Your task to perform on an android device: Open Google Chrome and open the bookmarks view Image 0: 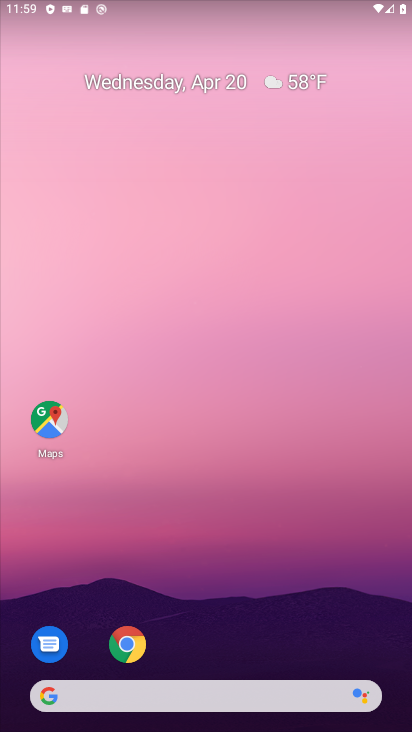
Step 0: click (128, 645)
Your task to perform on an android device: Open Google Chrome and open the bookmarks view Image 1: 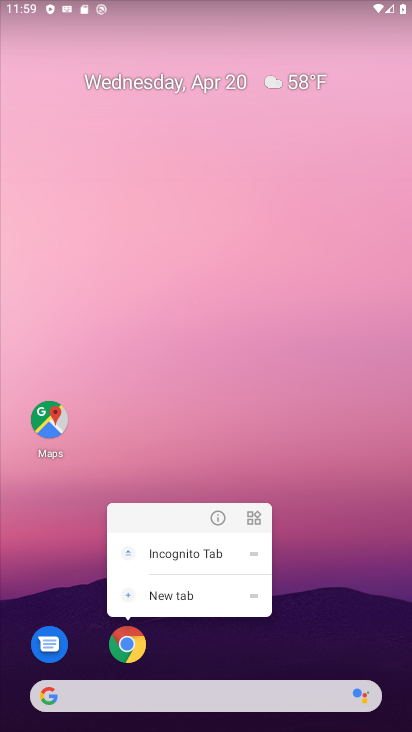
Step 1: click (217, 522)
Your task to perform on an android device: Open Google Chrome and open the bookmarks view Image 2: 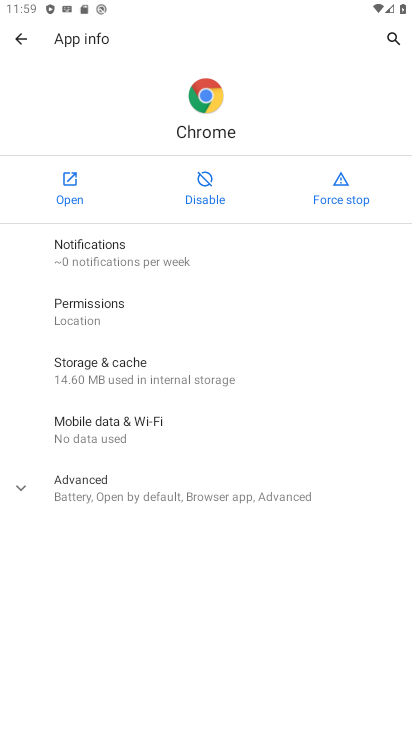
Step 2: click (73, 193)
Your task to perform on an android device: Open Google Chrome and open the bookmarks view Image 3: 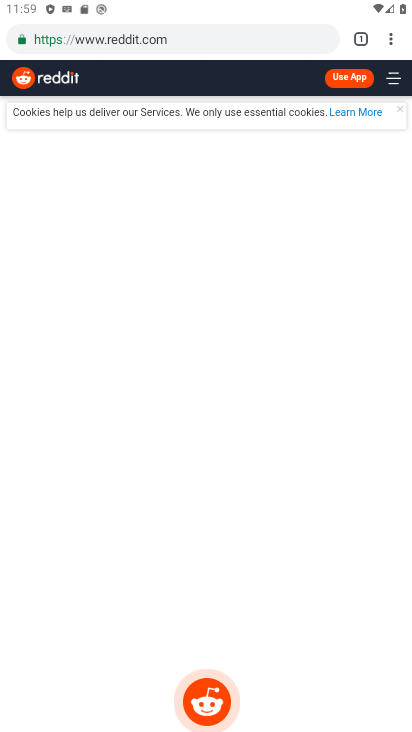
Step 3: click (388, 44)
Your task to perform on an android device: Open Google Chrome and open the bookmarks view Image 4: 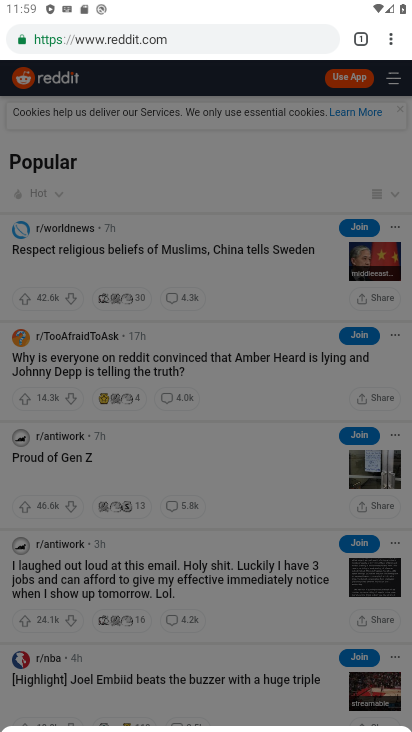
Step 4: click (388, 44)
Your task to perform on an android device: Open Google Chrome and open the bookmarks view Image 5: 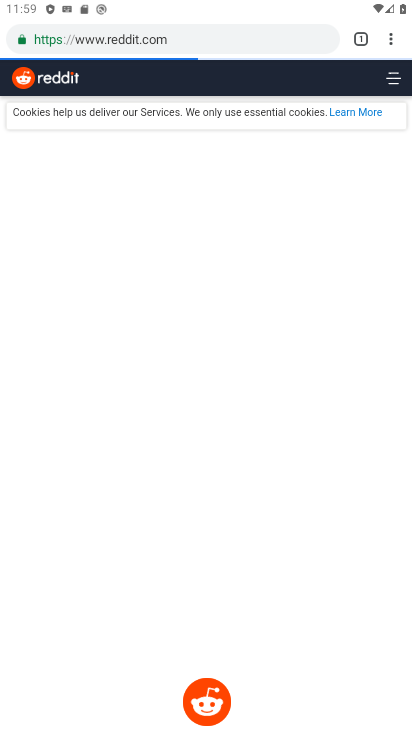
Step 5: click (388, 44)
Your task to perform on an android device: Open Google Chrome and open the bookmarks view Image 6: 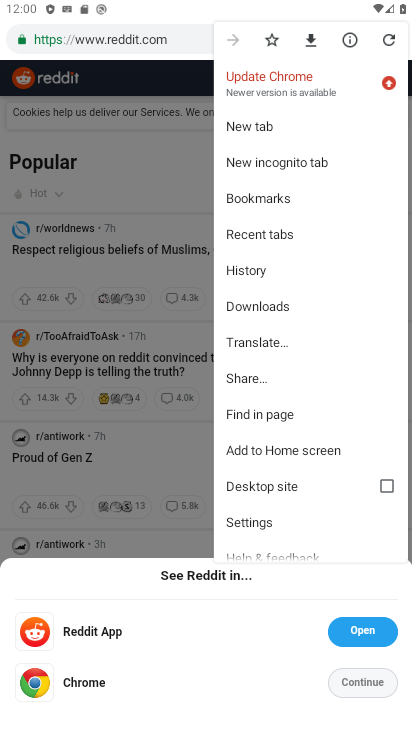
Step 6: click (256, 195)
Your task to perform on an android device: Open Google Chrome and open the bookmarks view Image 7: 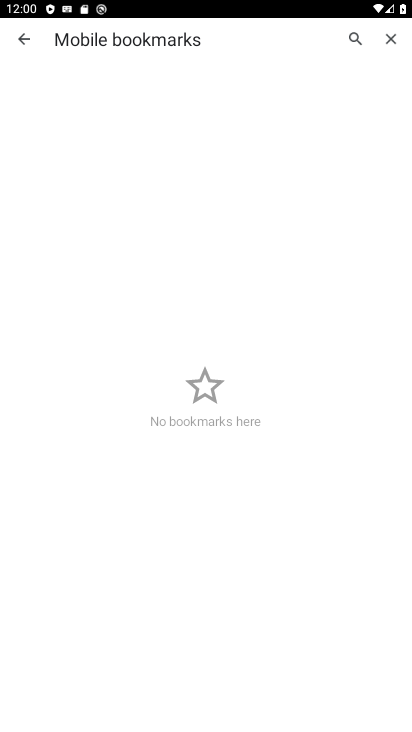
Step 7: task complete